Your task to perform on an android device: Go to sound settings Image 0: 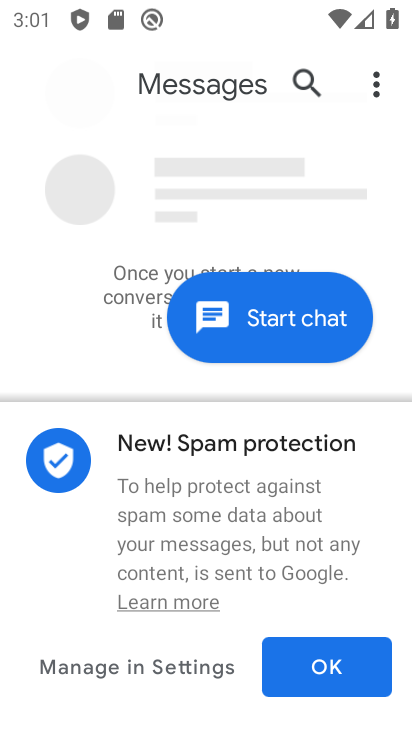
Step 0: press home button
Your task to perform on an android device: Go to sound settings Image 1: 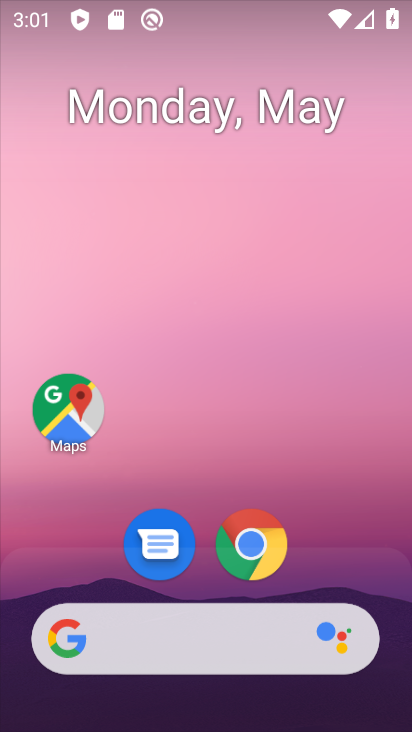
Step 1: drag from (295, 676) to (309, 189)
Your task to perform on an android device: Go to sound settings Image 2: 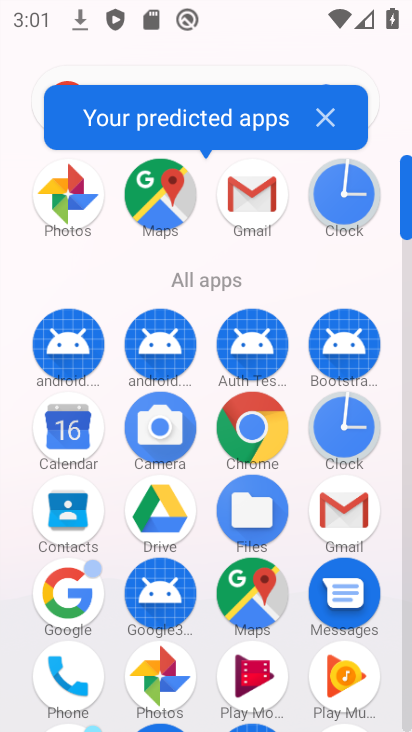
Step 2: drag from (274, 628) to (302, 217)
Your task to perform on an android device: Go to sound settings Image 3: 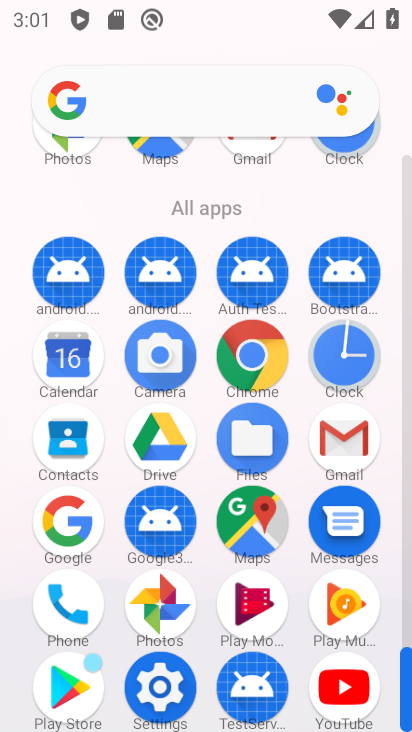
Step 3: click (157, 682)
Your task to perform on an android device: Go to sound settings Image 4: 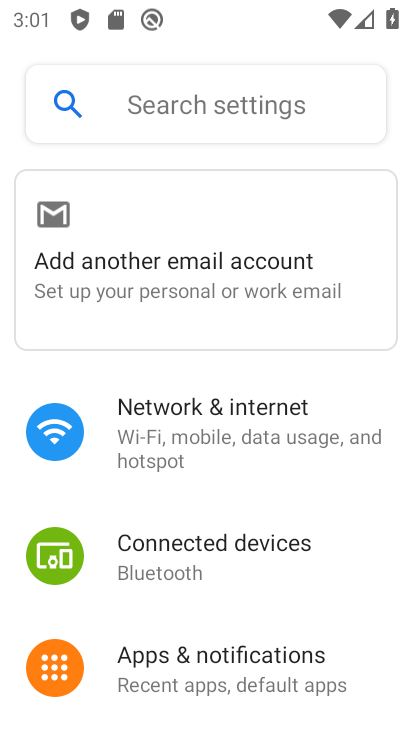
Step 4: drag from (282, 603) to (295, 83)
Your task to perform on an android device: Go to sound settings Image 5: 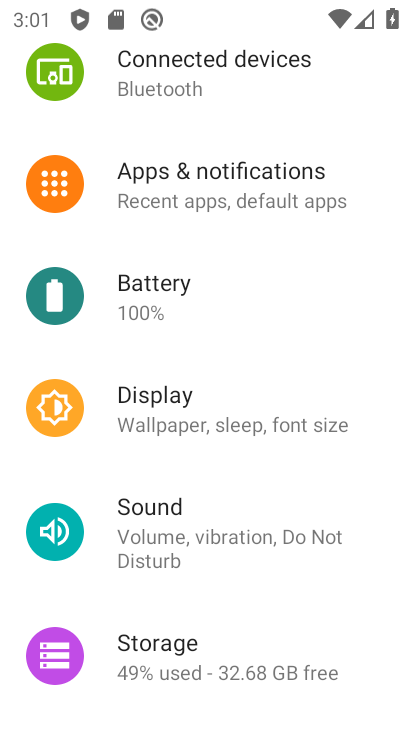
Step 5: drag from (221, 599) to (221, 492)
Your task to perform on an android device: Go to sound settings Image 6: 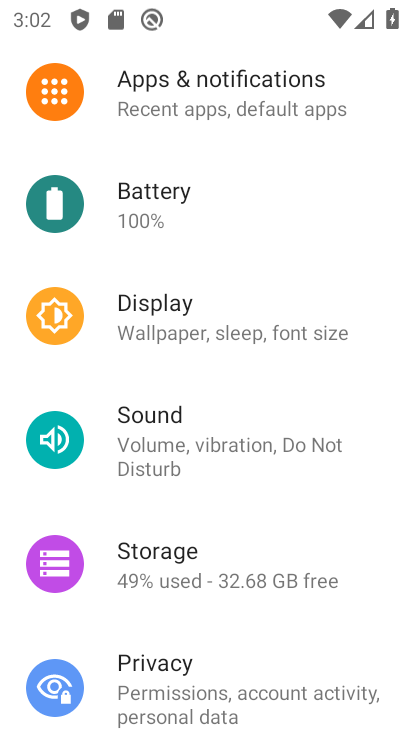
Step 6: click (226, 465)
Your task to perform on an android device: Go to sound settings Image 7: 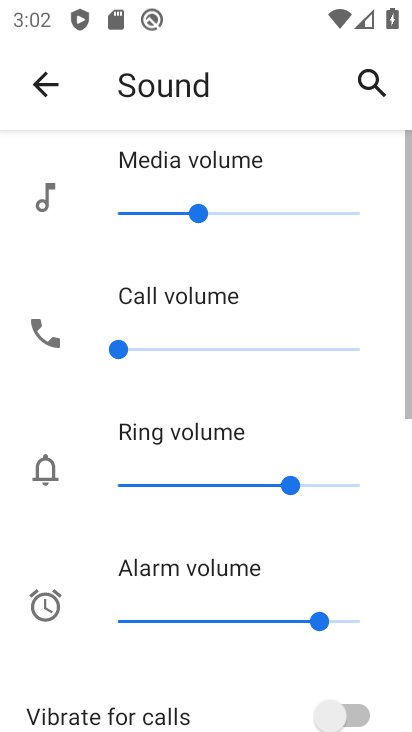
Step 7: task complete